Your task to perform on an android device: Open the calendar and show me this week's events? Image 0: 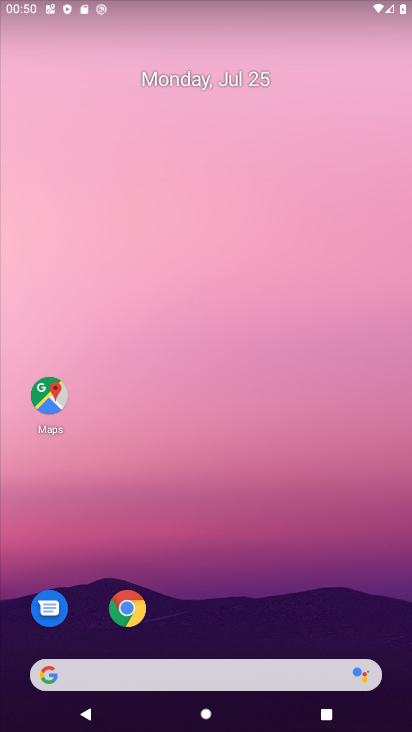
Step 0: drag from (209, 643) to (164, 114)
Your task to perform on an android device: Open the calendar and show me this week's events? Image 1: 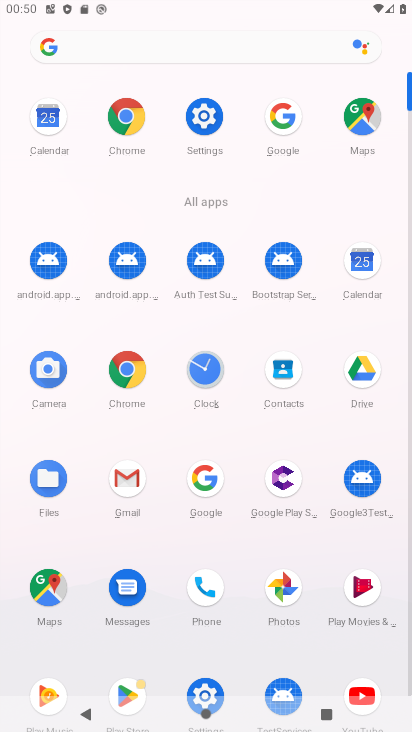
Step 1: click (351, 272)
Your task to perform on an android device: Open the calendar and show me this week's events? Image 2: 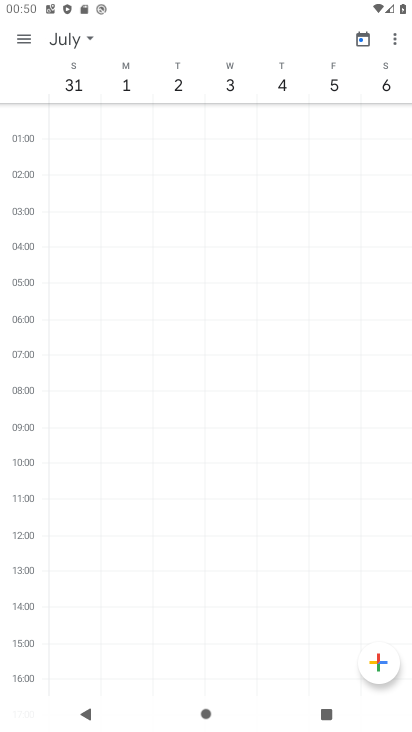
Step 2: task complete